Your task to perform on an android device: turn off location history Image 0: 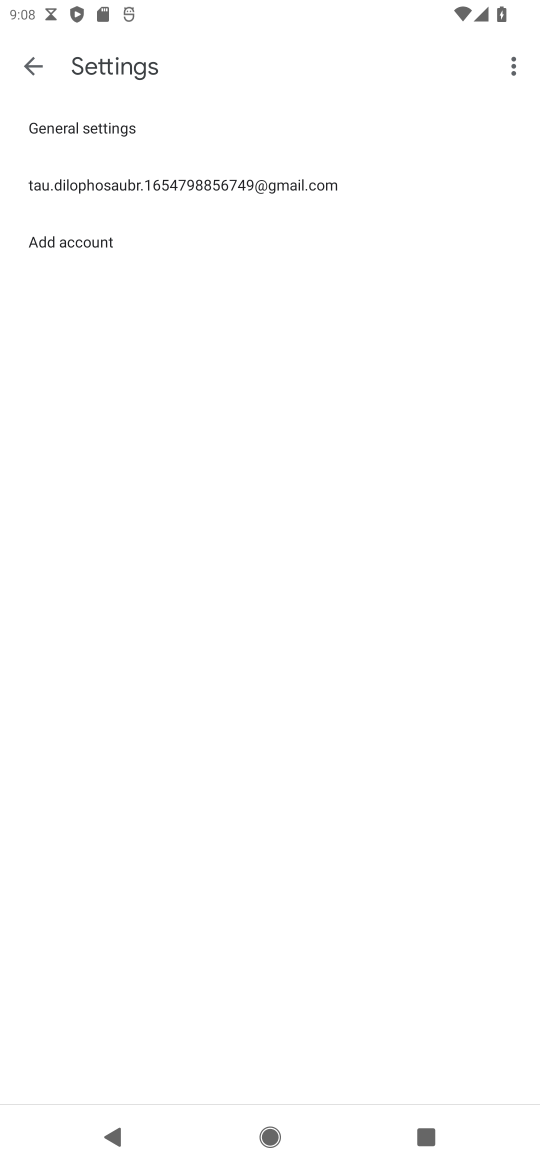
Step 0: press home button
Your task to perform on an android device: turn off location history Image 1: 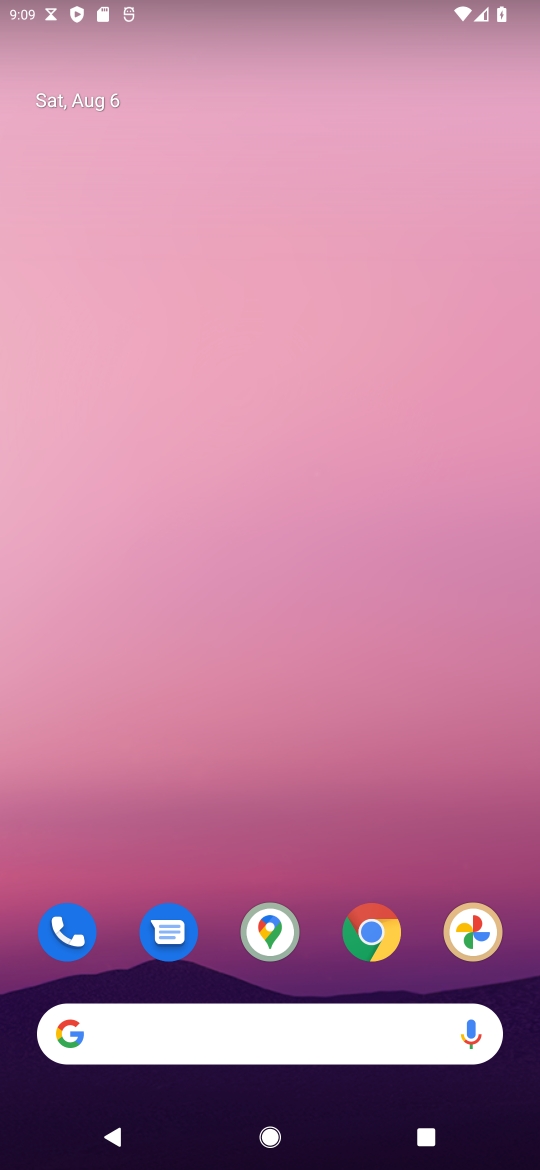
Step 1: drag from (190, 1045) to (389, 389)
Your task to perform on an android device: turn off location history Image 2: 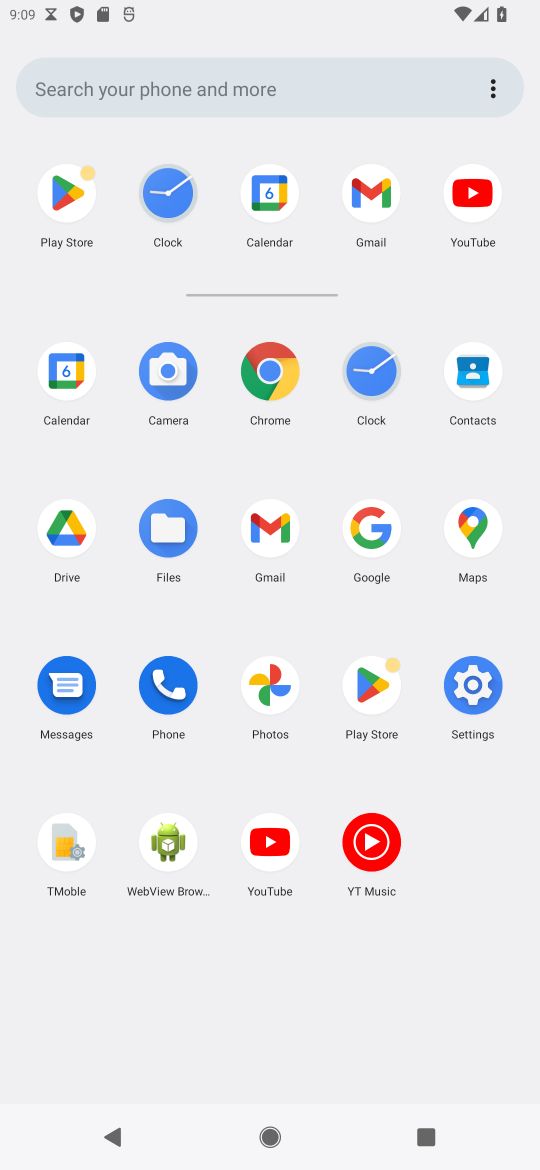
Step 2: click (471, 685)
Your task to perform on an android device: turn off location history Image 3: 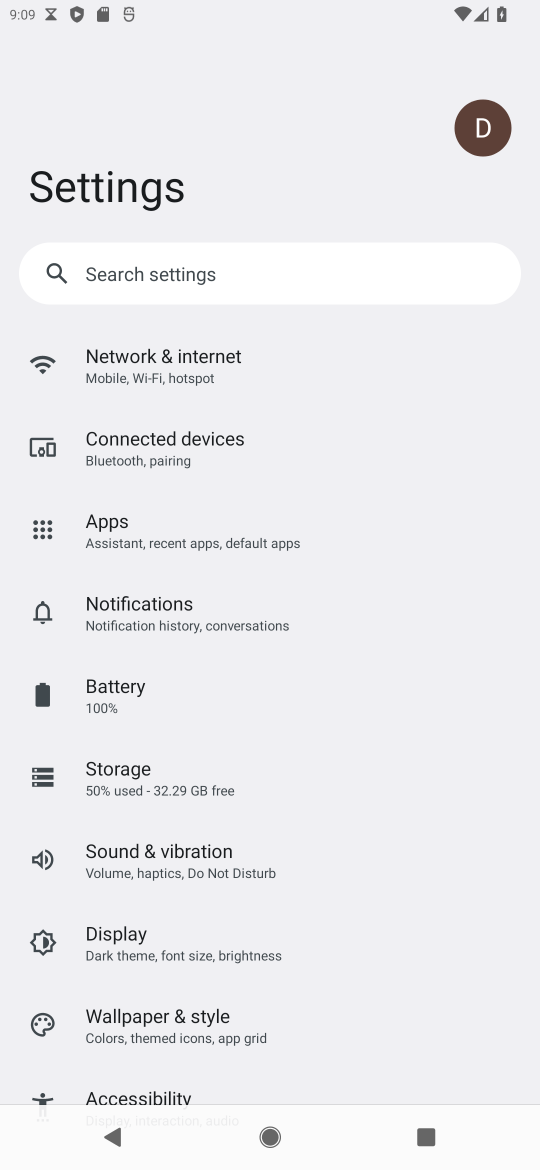
Step 3: drag from (165, 809) to (268, 604)
Your task to perform on an android device: turn off location history Image 4: 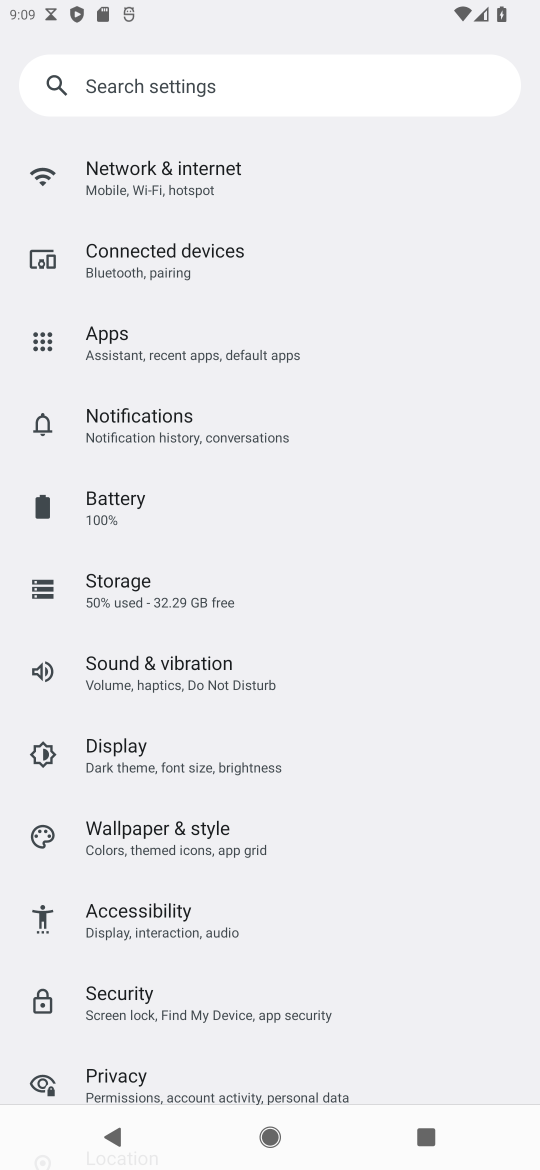
Step 4: drag from (155, 870) to (288, 666)
Your task to perform on an android device: turn off location history Image 5: 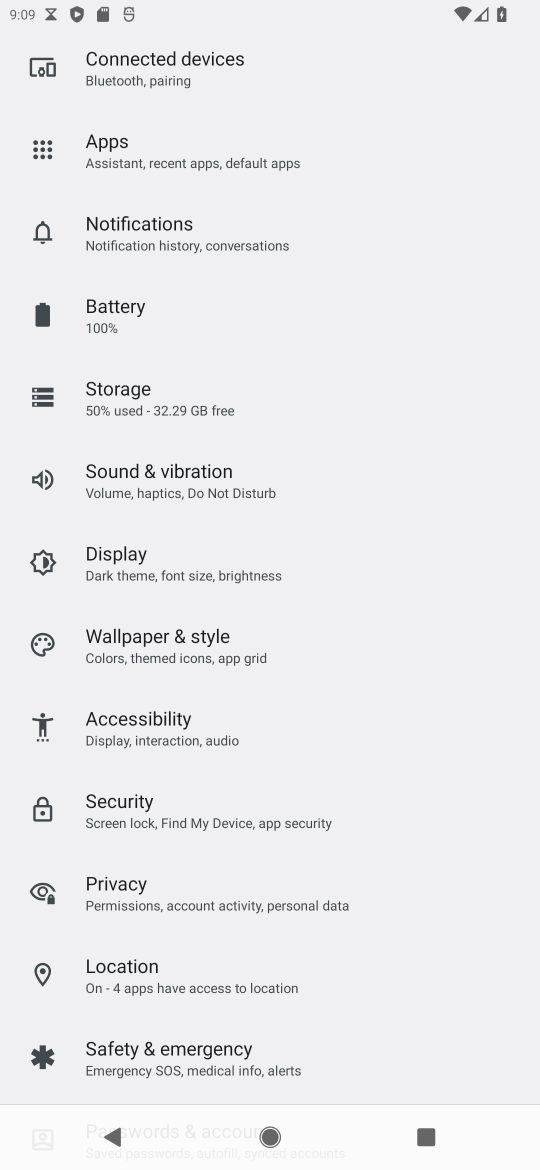
Step 5: drag from (149, 846) to (274, 662)
Your task to perform on an android device: turn off location history Image 6: 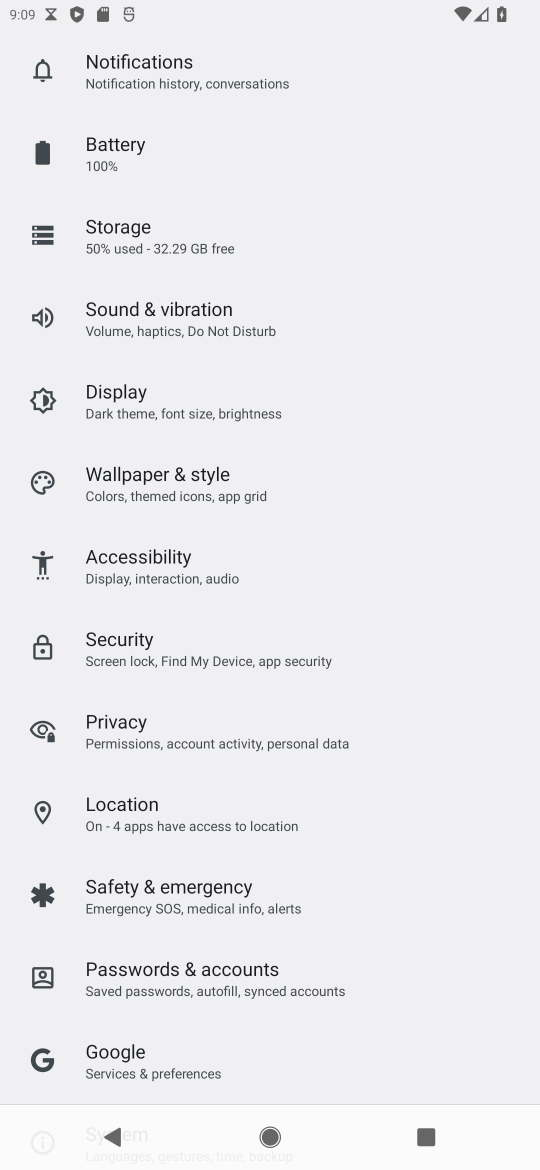
Step 6: click (144, 817)
Your task to perform on an android device: turn off location history Image 7: 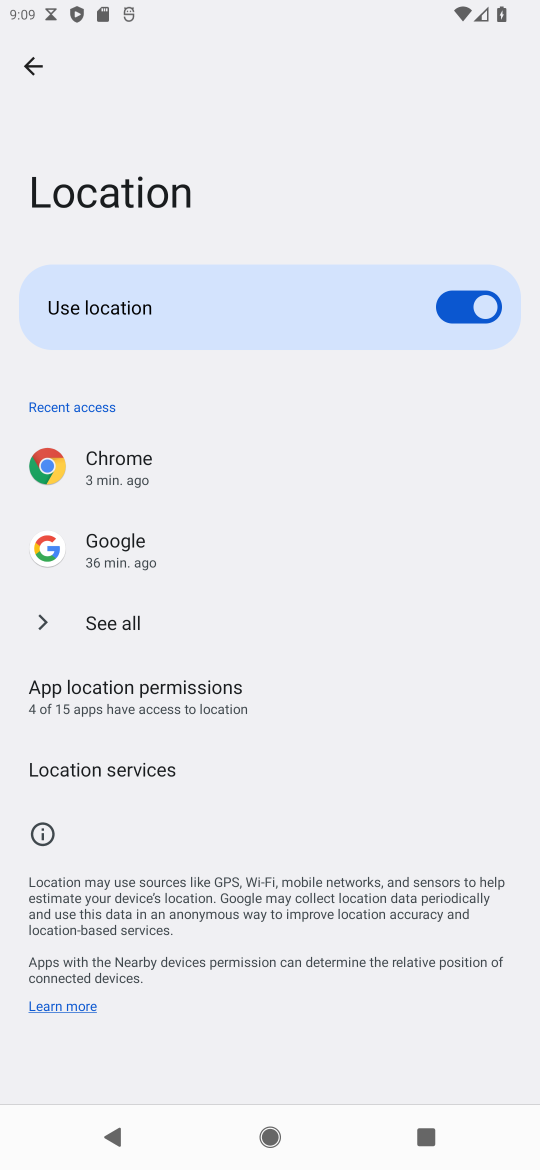
Step 7: click (127, 772)
Your task to perform on an android device: turn off location history Image 8: 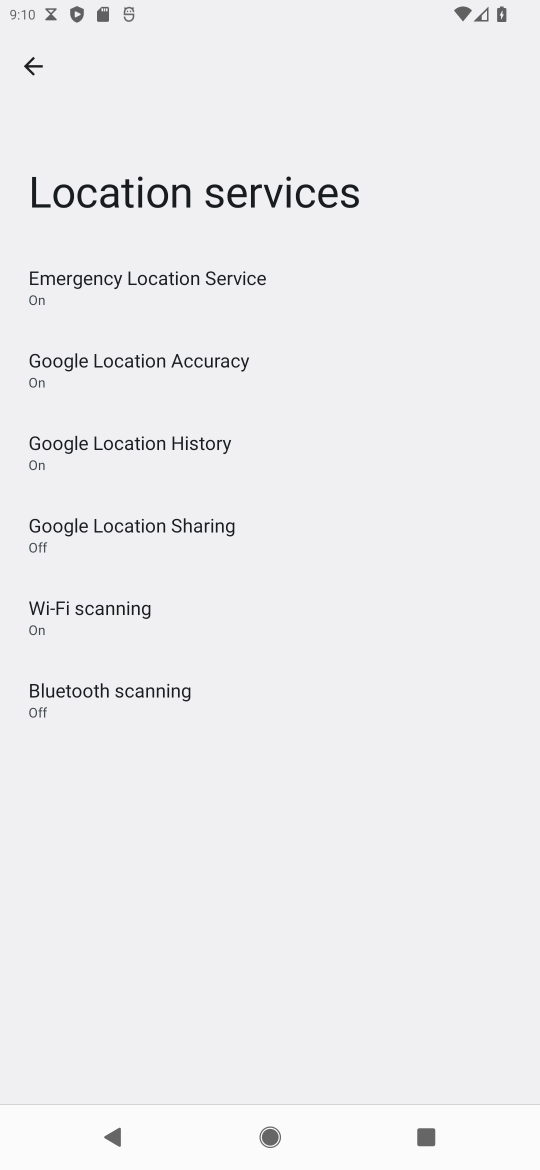
Step 8: click (189, 454)
Your task to perform on an android device: turn off location history Image 9: 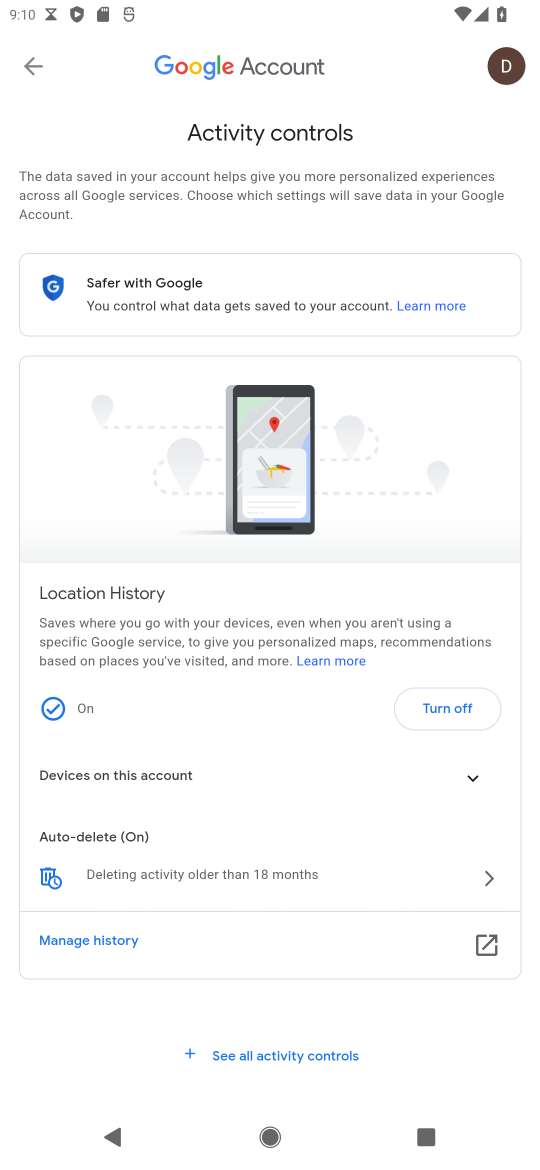
Step 9: click (442, 711)
Your task to perform on an android device: turn off location history Image 10: 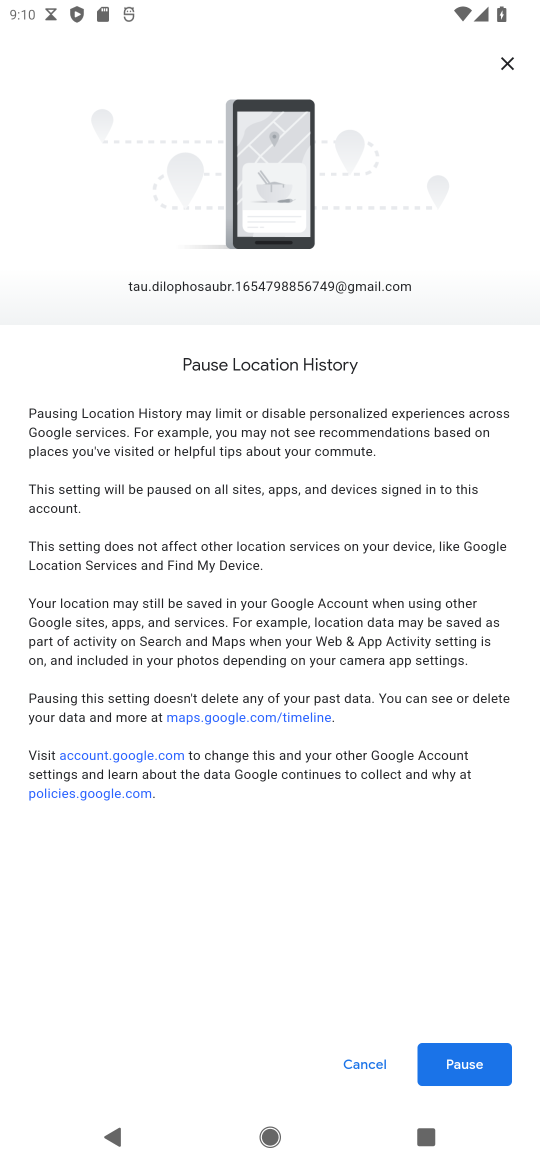
Step 10: click (460, 1059)
Your task to perform on an android device: turn off location history Image 11: 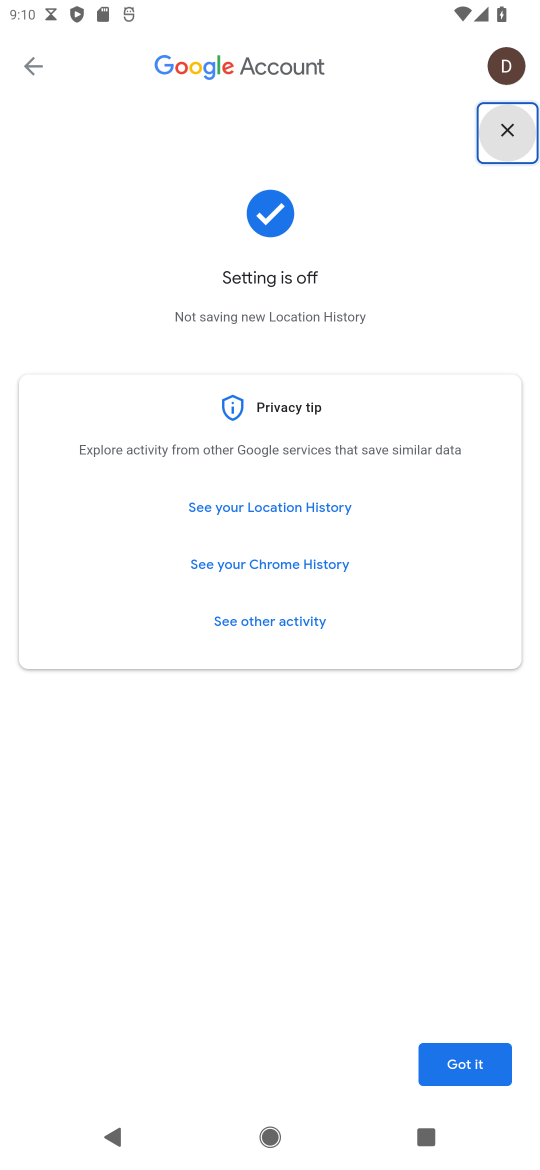
Step 11: click (462, 1063)
Your task to perform on an android device: turn off location history Image 12: 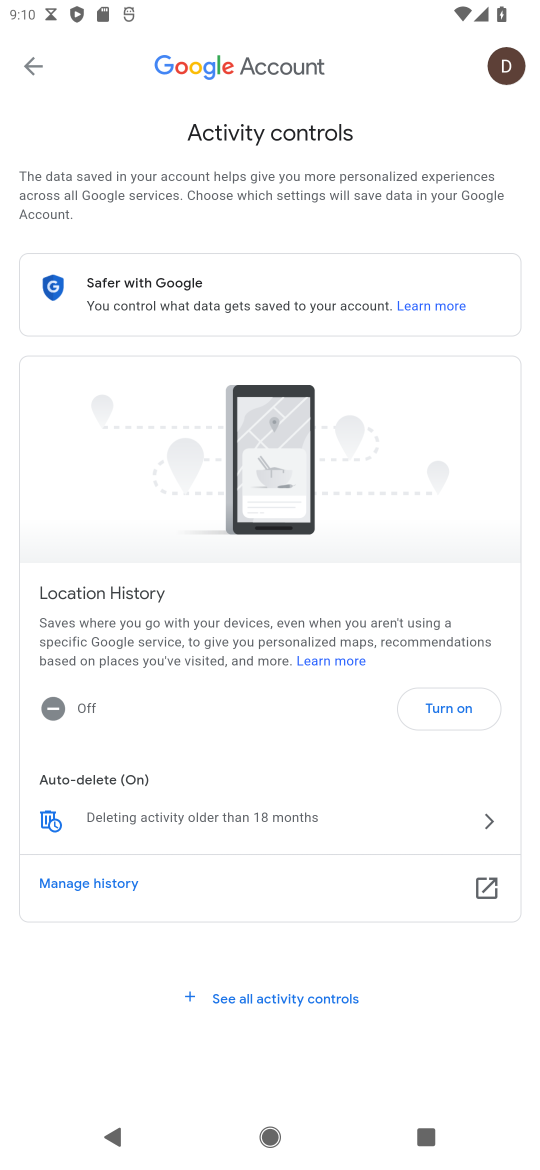
Step 12: task complete